Your task to perform on an android device: Add "dell xps" to the cart on ebay.com, then select checkout. Image 0: 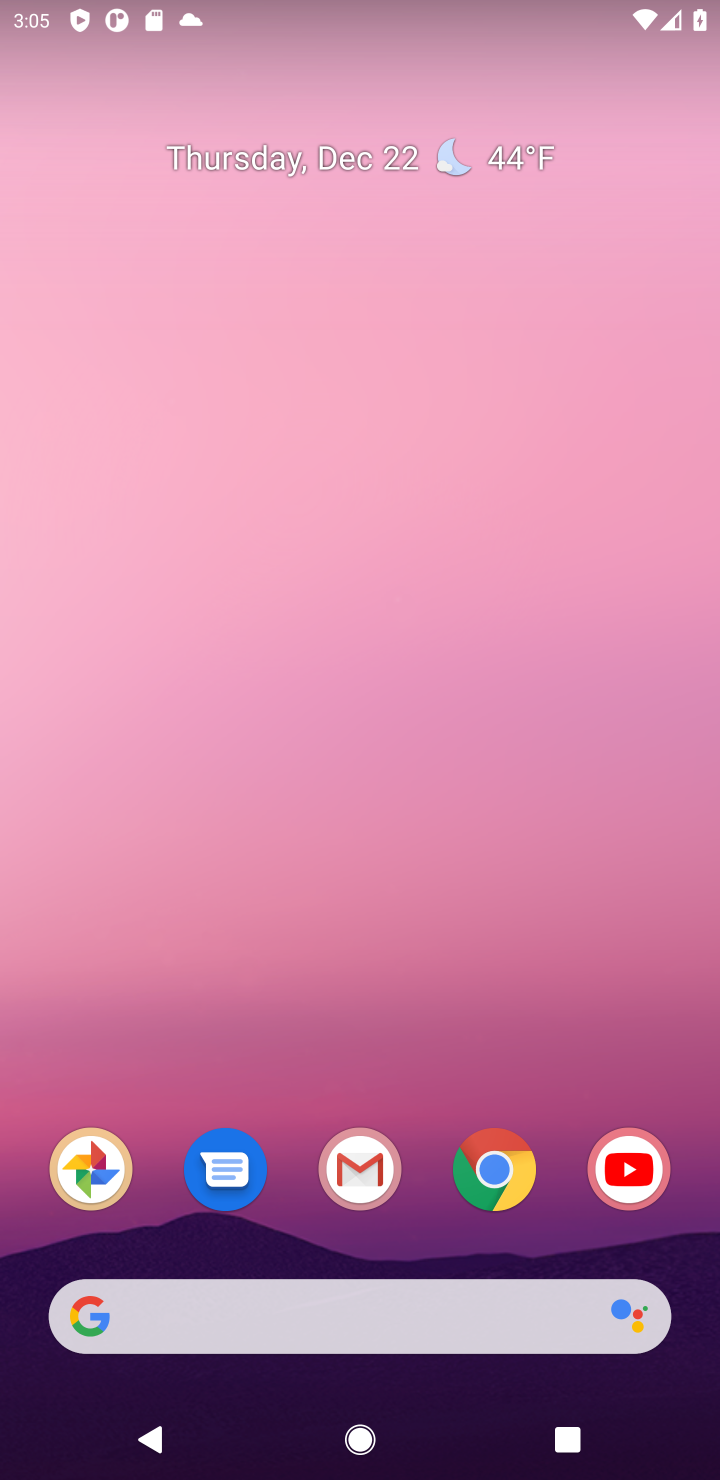
Step 0: click (500, 1180)
Your task to perform on an android device: Add "dell xps" to the cart on ebay.com, then select checkout. Image 1: 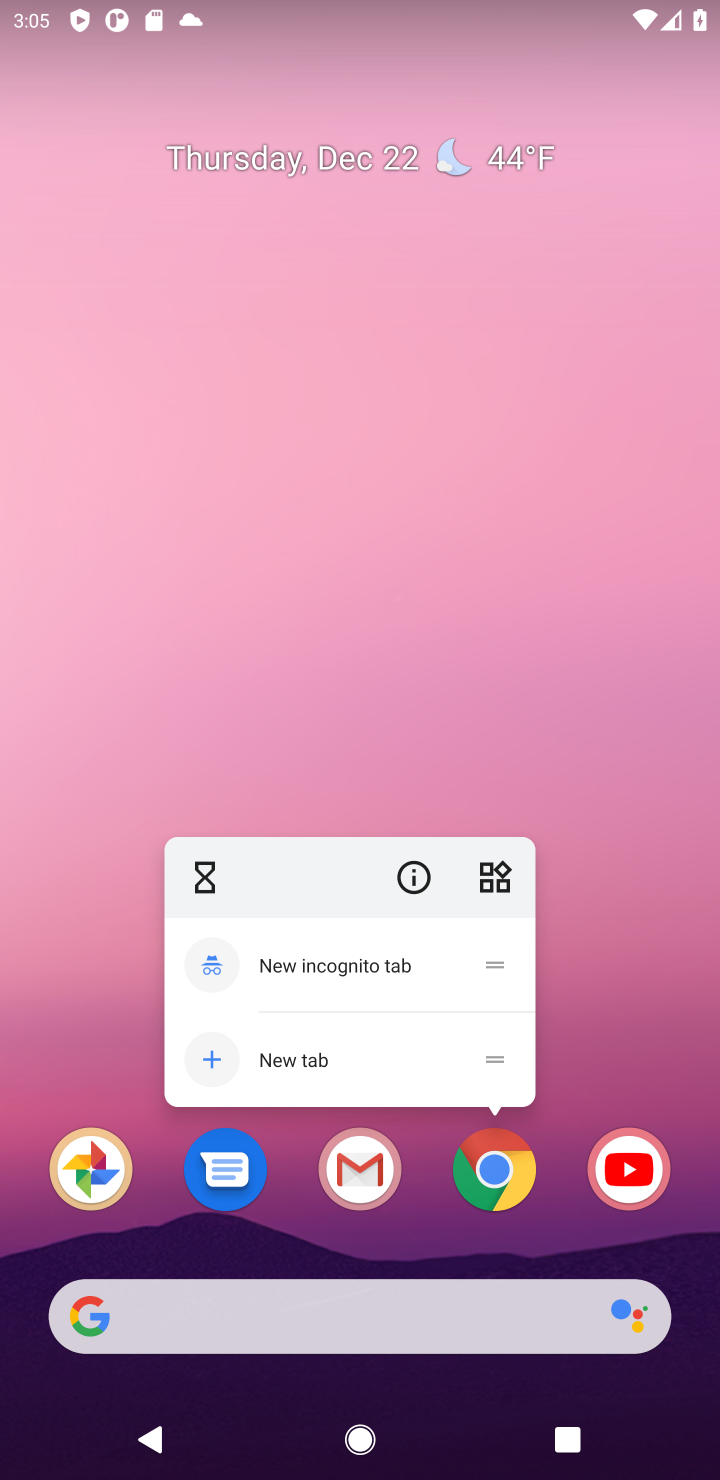
Step 1: click (500, 1180)
Your task to perform on an android device: Add "dell xps" to the cart on ebay.com, then select checkout. Image 2: 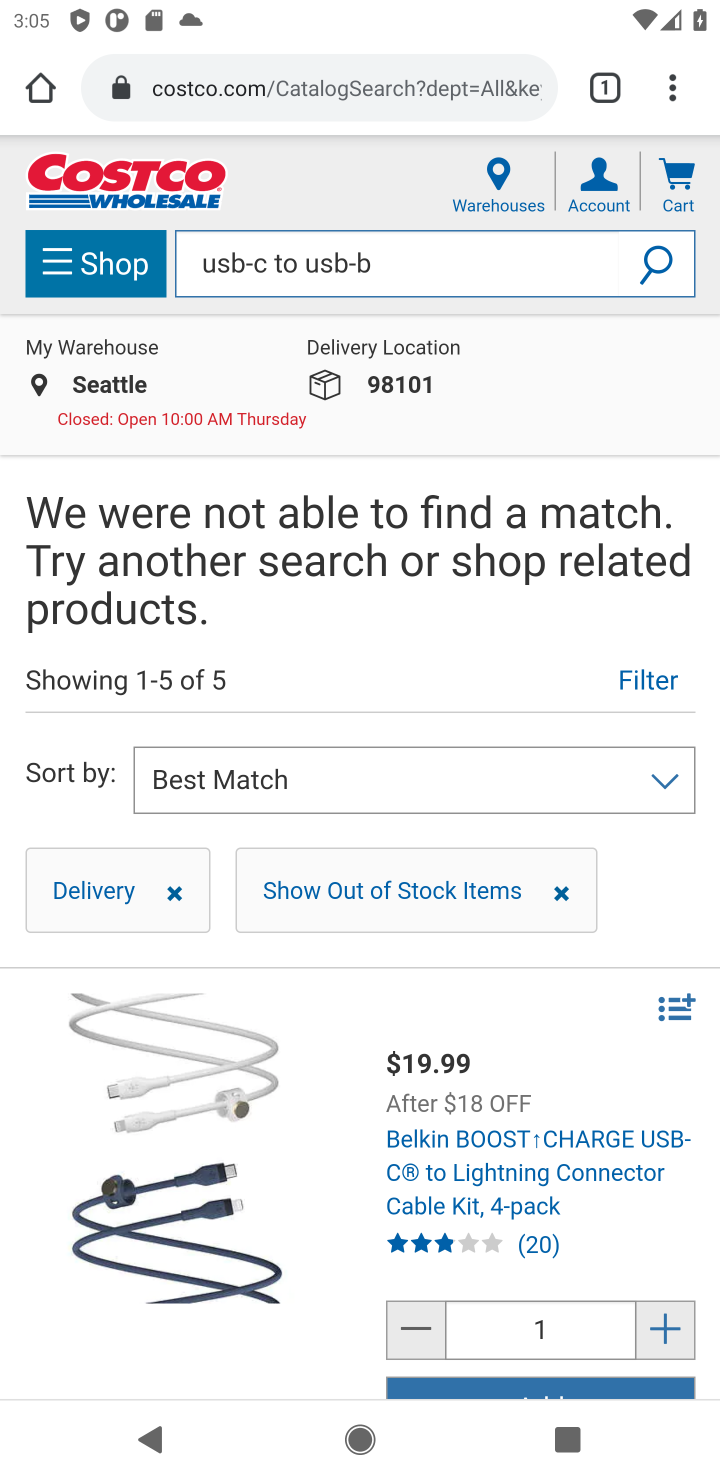
Step 2: click (271, 91)
Your task to perform on an android device: Add "dell xps" to the cart on ebay.com, then select checkout. Image 3: 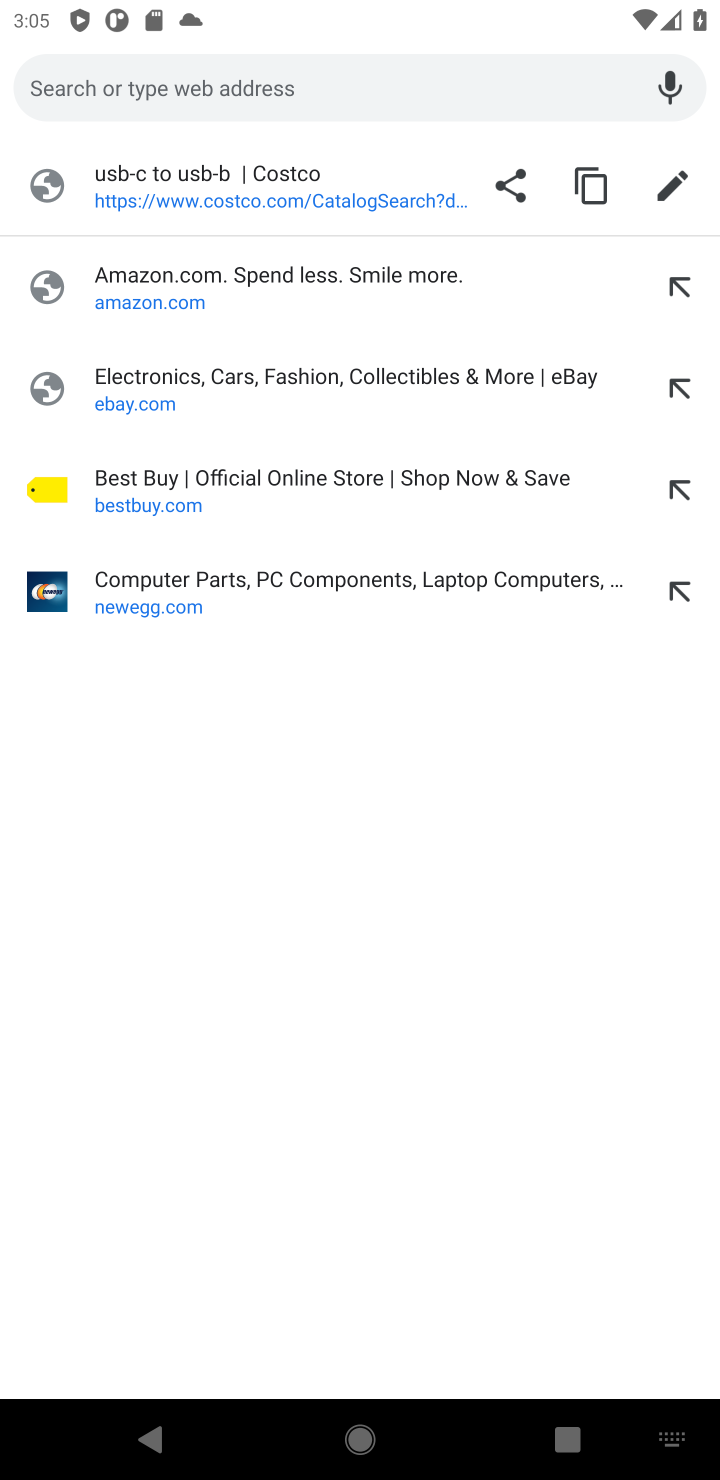
Step 3: click (119, 393)
Your task to perform on an android device: Add "dell xps" to the cart on ebay.com, then select checkout. Image 4: 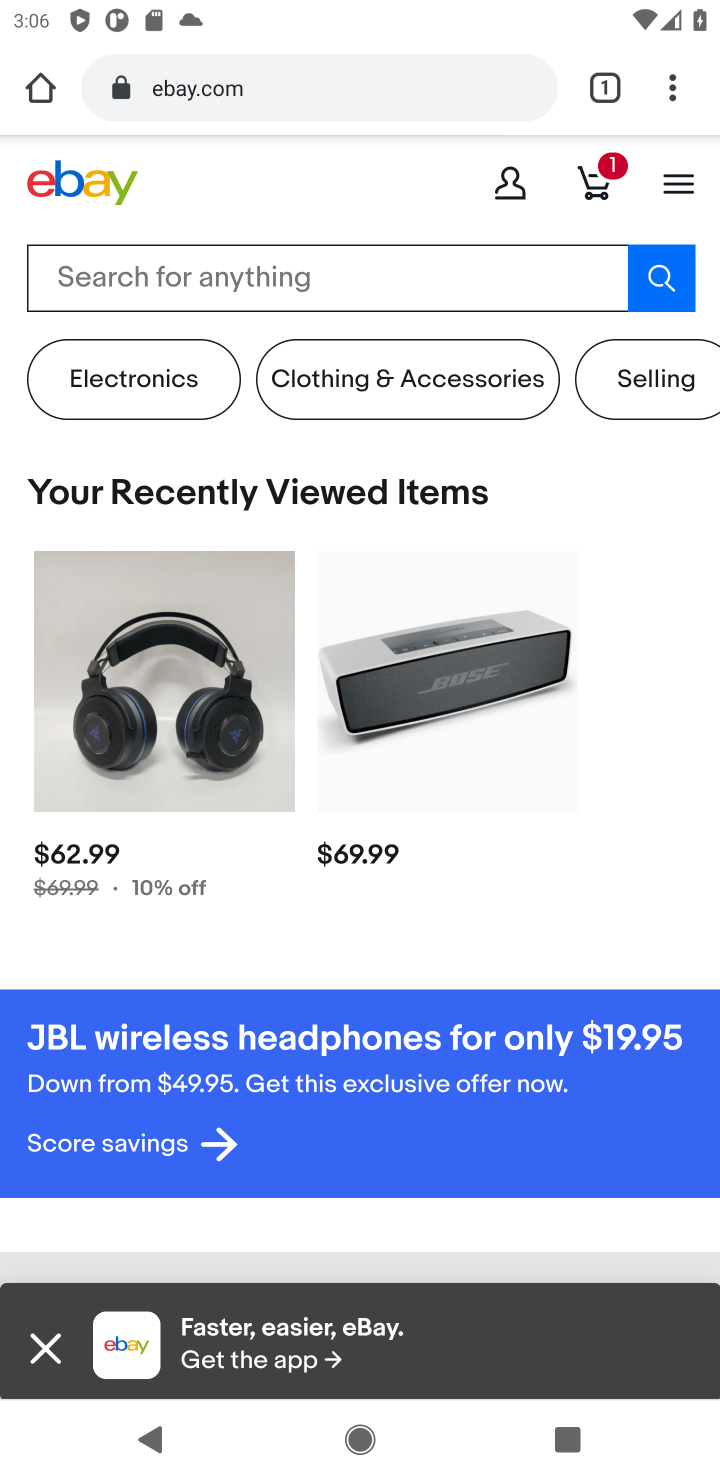
Step 4: click (96, 274)
Your task to perform on an android device: Add "dell xps" to the cart on ebay.com, then select checkout. Image 5: 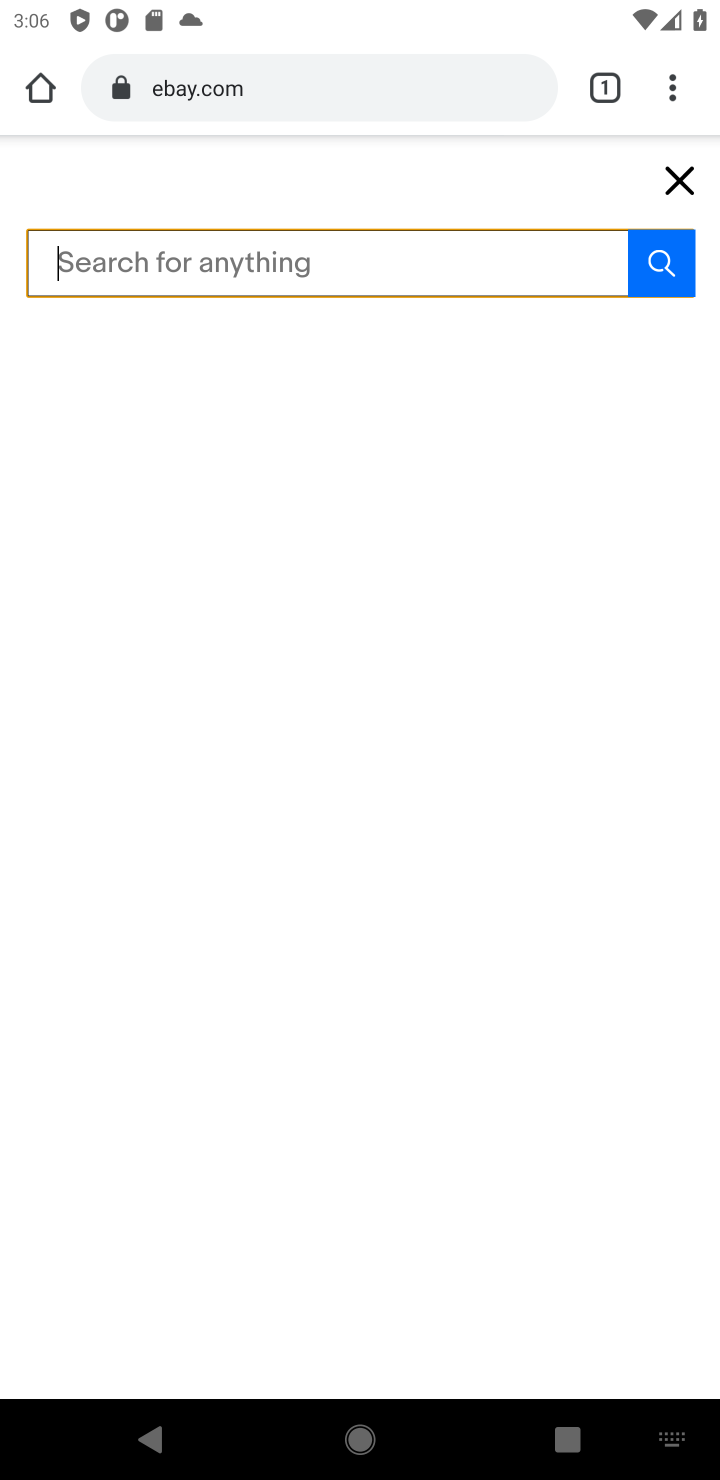
Step 5: type "dell xps"
Your task to perform on an android device: Add "dell xps" to the cart on ebay.com, then select checkout. Image 6: 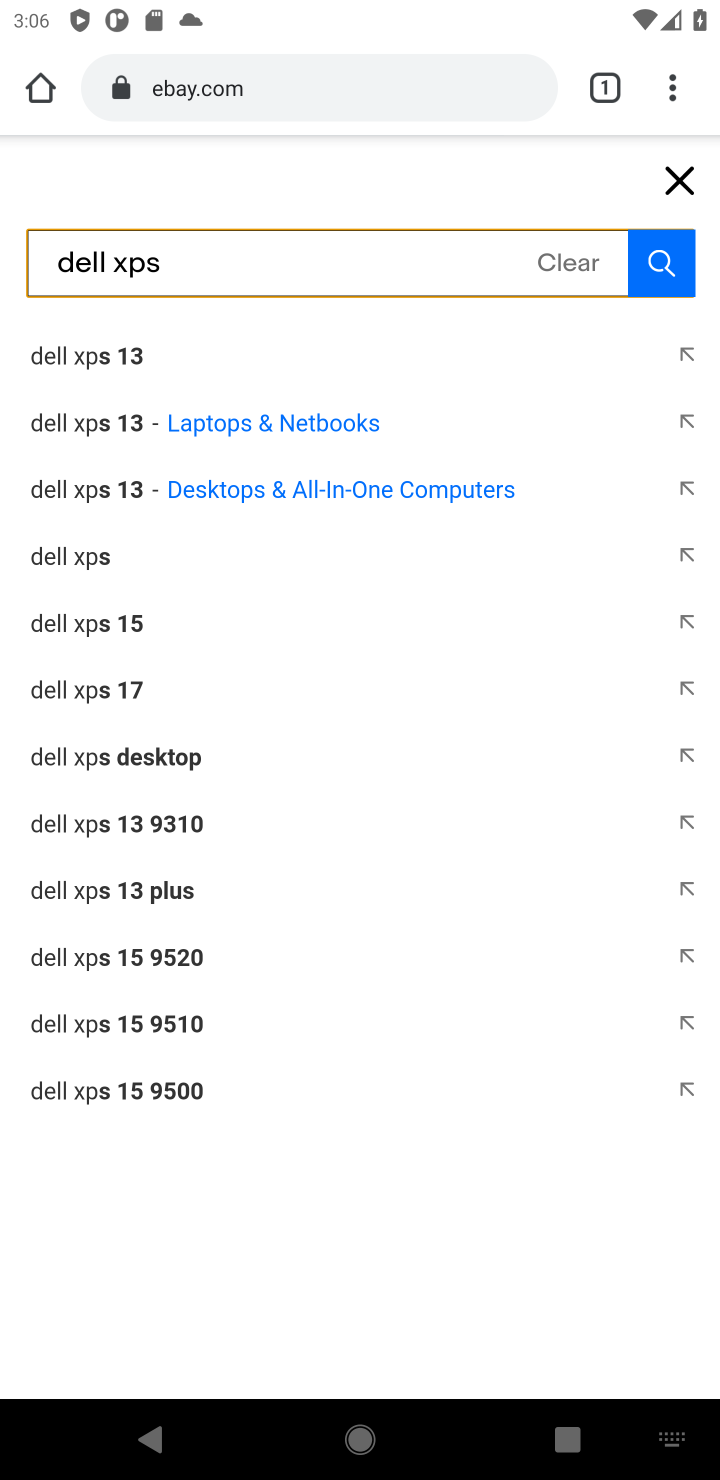
Step 6: click (80, 567)
Your task to perform on an android device: Add "dell xps" to the cart on ebay.com, then select checkout. Image 7: 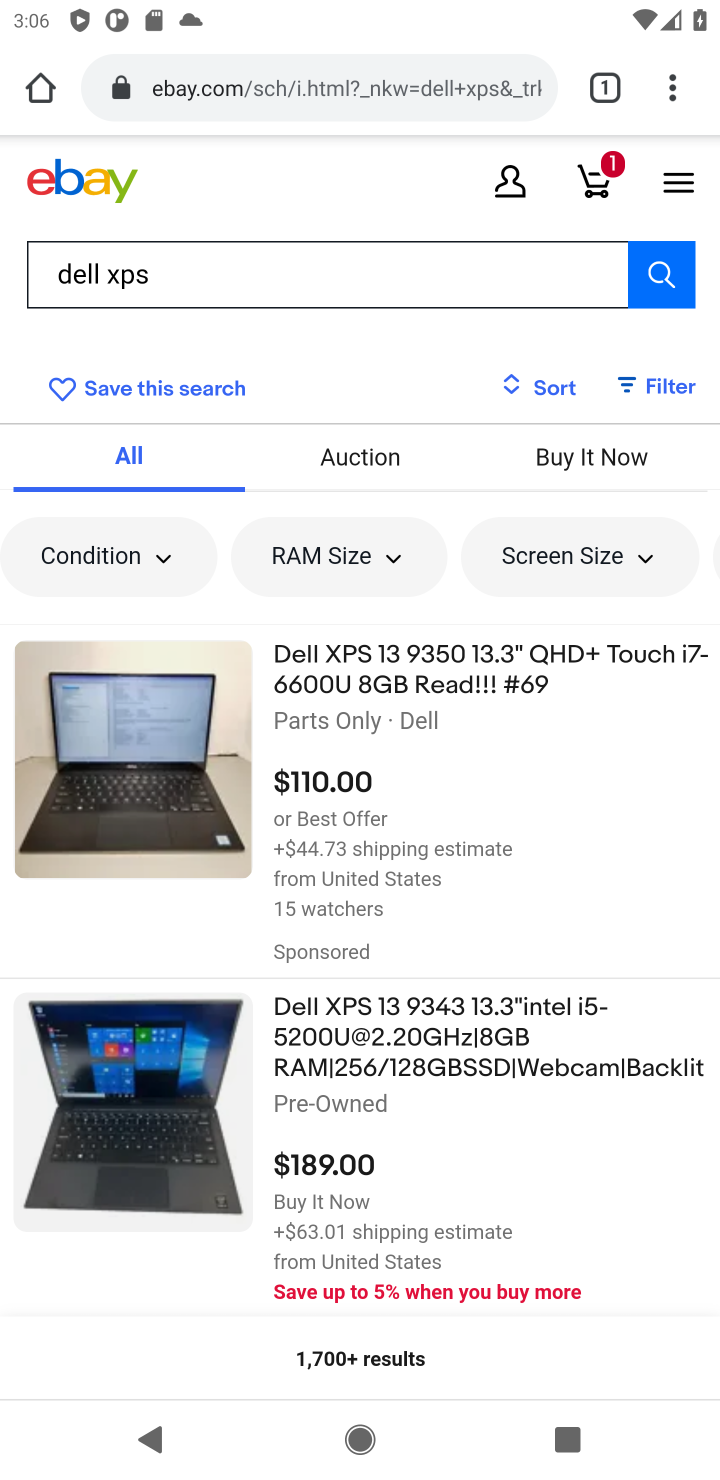
Step 7: click (384, 694)
Your task to perform on an android device: Add "dell xps" to the cart on ebay.com, then select checkout. Image 8: 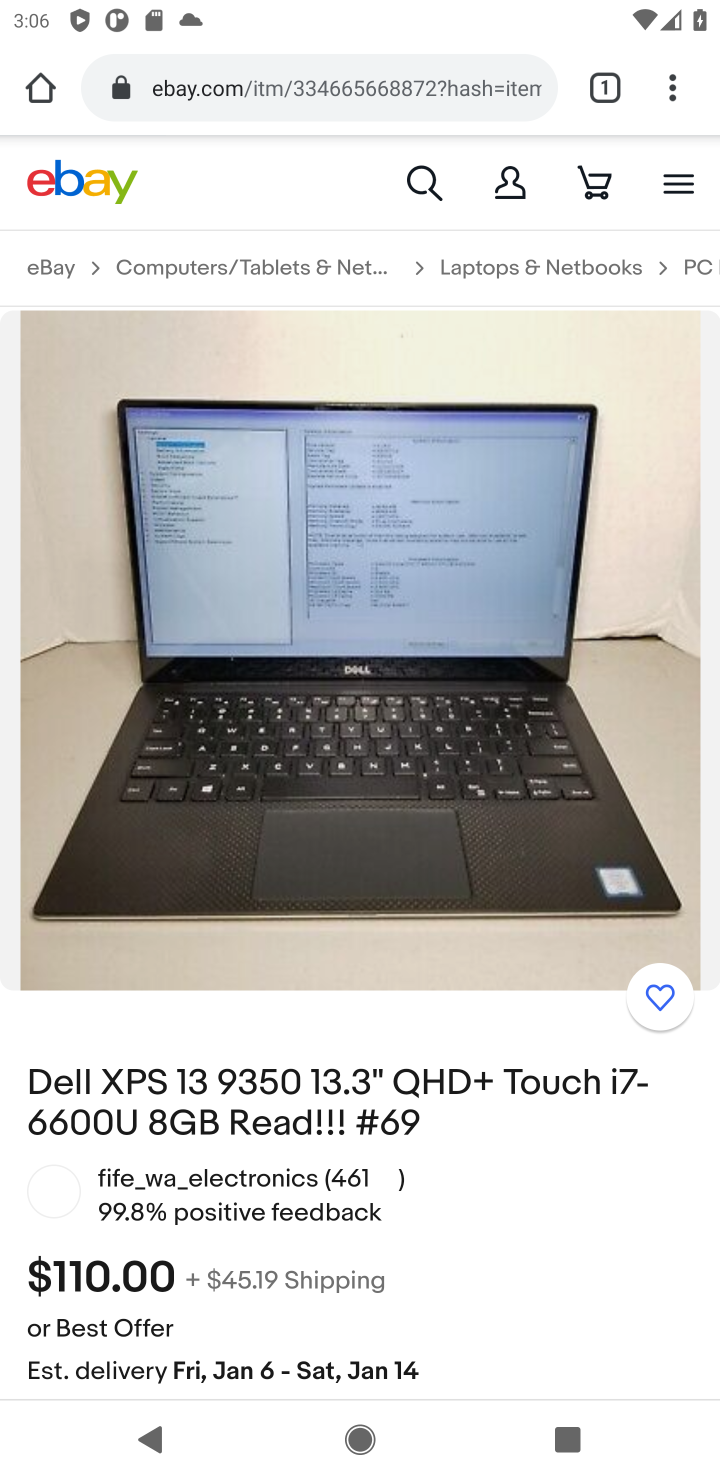
Step 8: drag from (232, 1123) to (303, 604)
Your task to perform on an android device: Add "dell xps" to the cart on ebay.com, then select checkout. Image 9: 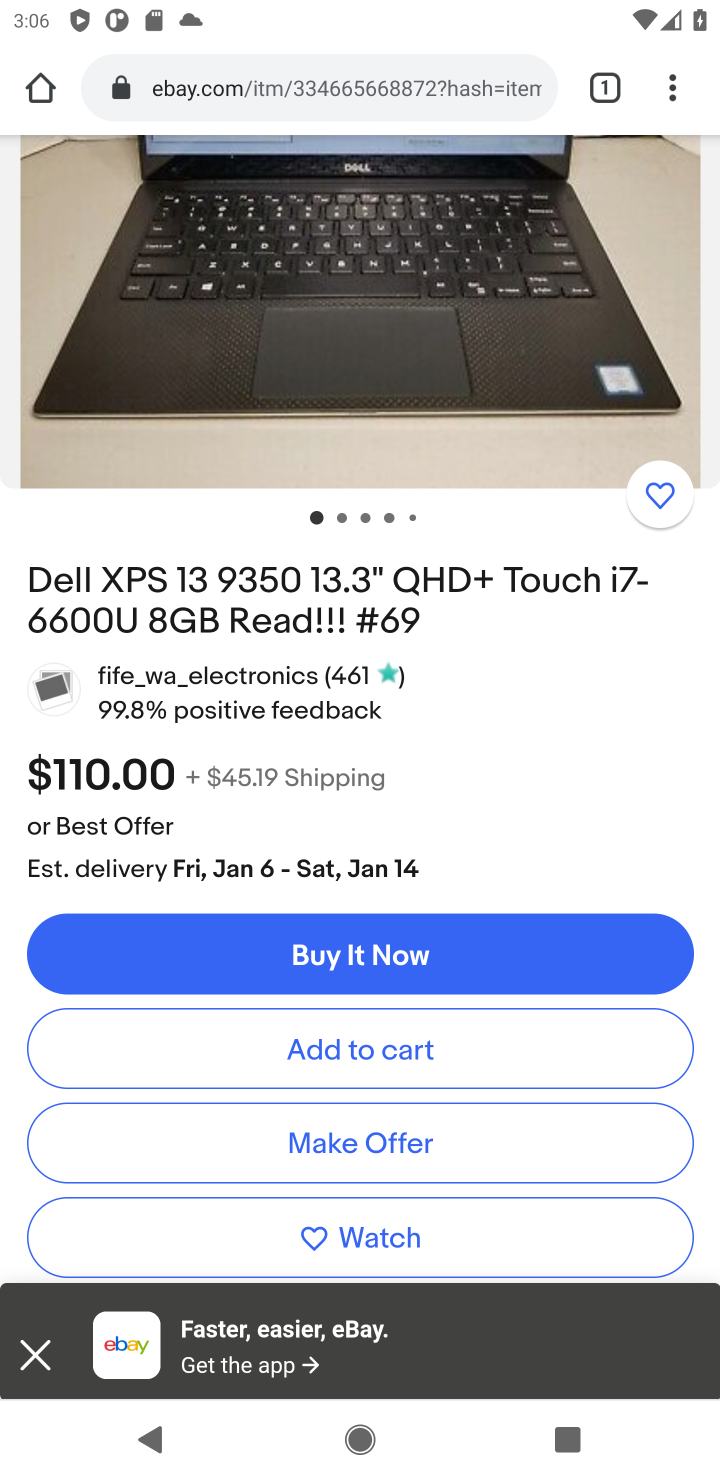
Step 9: click (343, 1051)
Your task to perform on an android device: Add "dell xps" to the cart on ebay.com, then select checkout. Image 10: 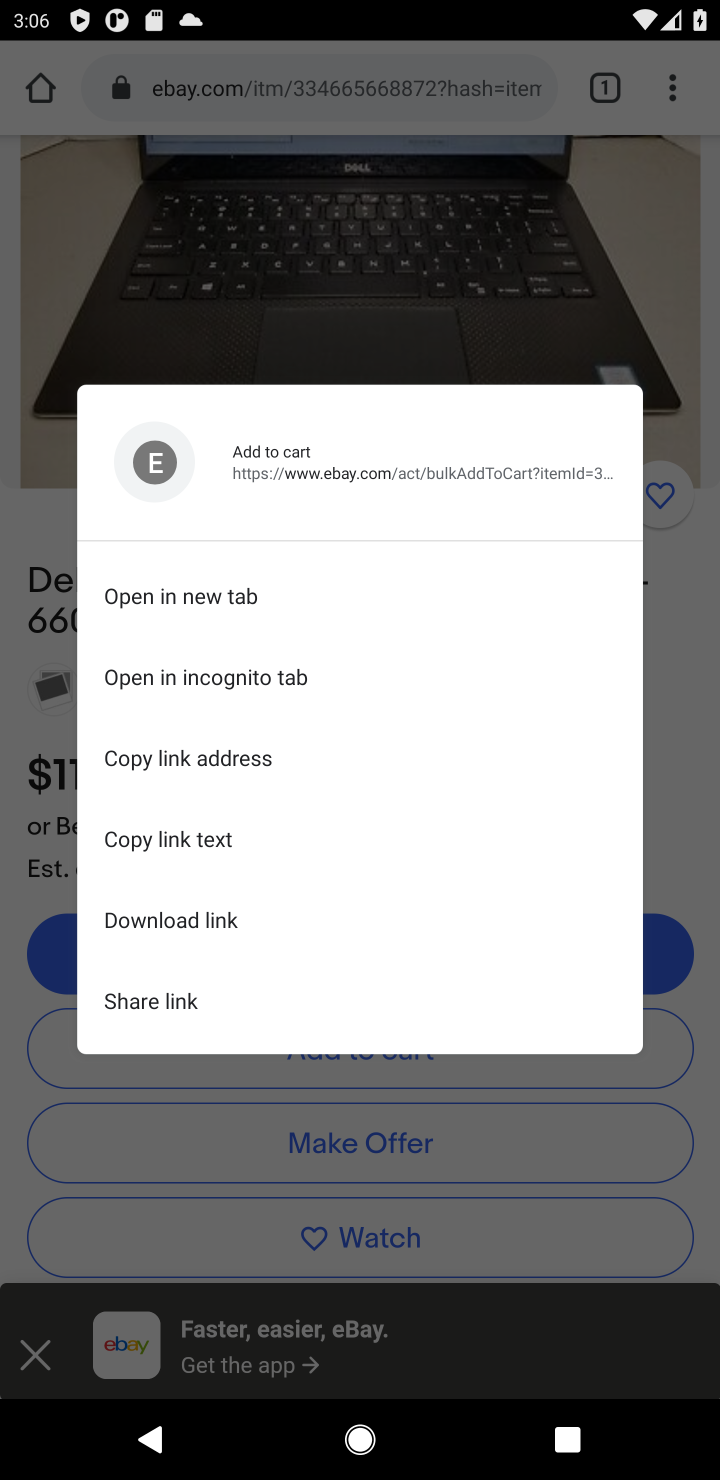
Step 10: click (336, 1066)
Your task to perform on an android device: Add "dell xps" to the cart on ebay.com, then select checkout. Image 11: 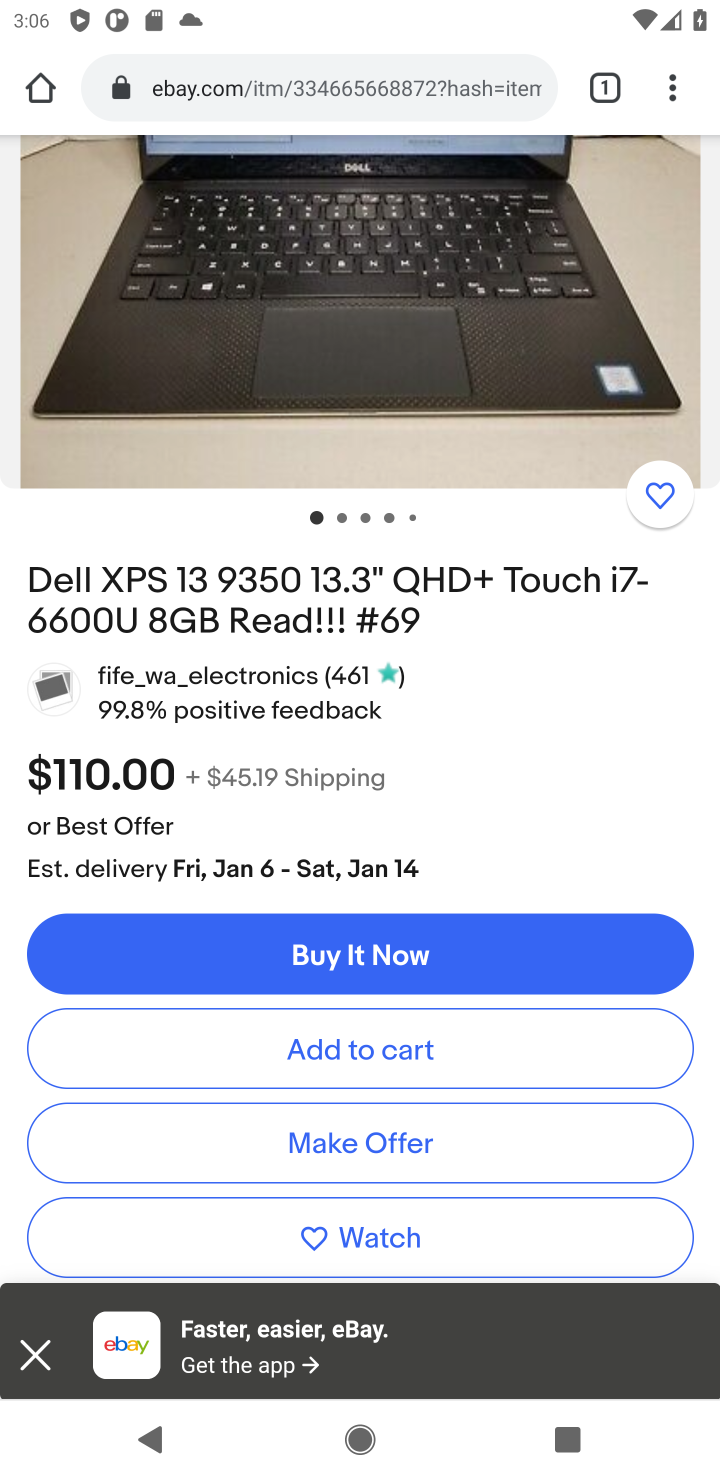
Step 11: click (347, 1048)
Your task to perform on an android device: Add "dell xps" to the cart on ebay.com, then select checkout. Image 12: 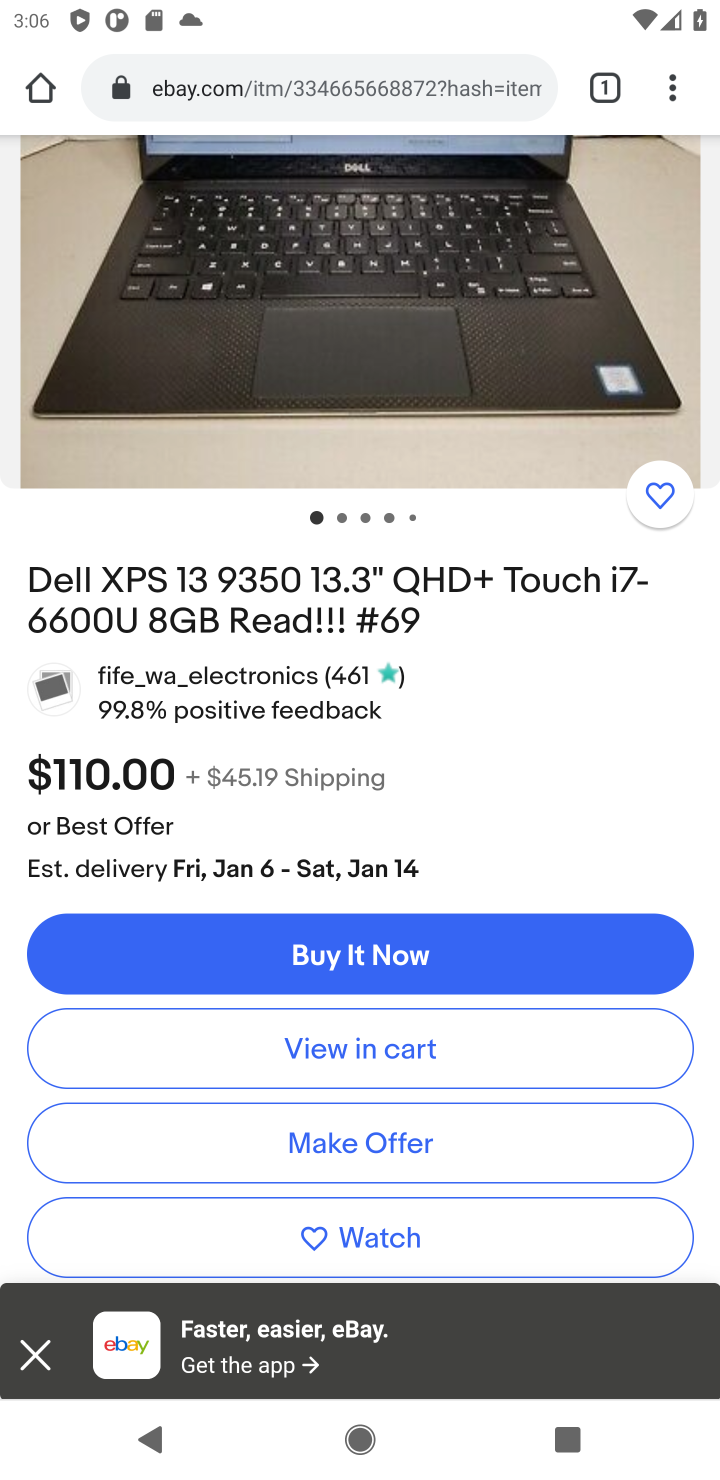
Step 12: click (347, 1048)
Your task to perform on an android device: Add "dell xps" to the cart on ebay.com, then select checkout. Image 13: 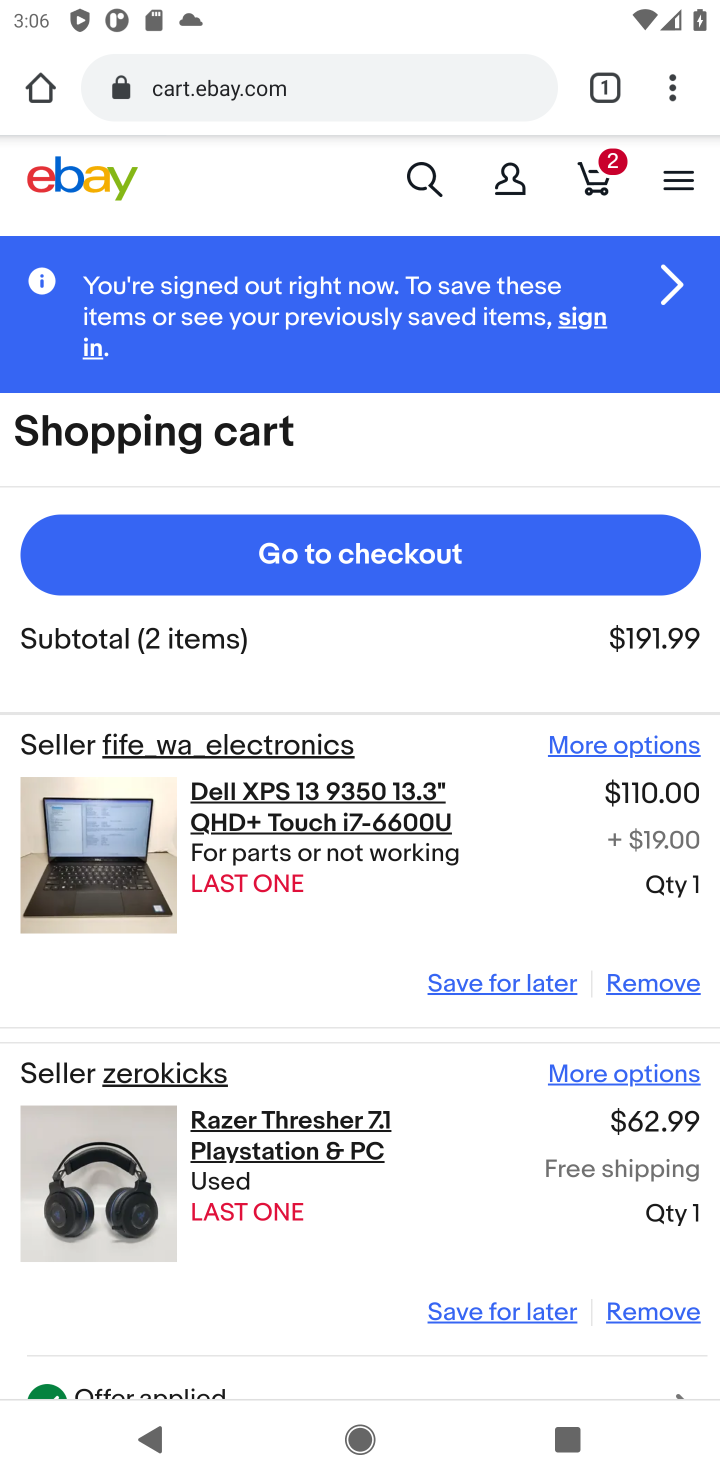
Step 13: click (330, 562)
Your task to perform on an android device: Add "dell xps" to the cart on ebay.com, then select checkout. Image 14: 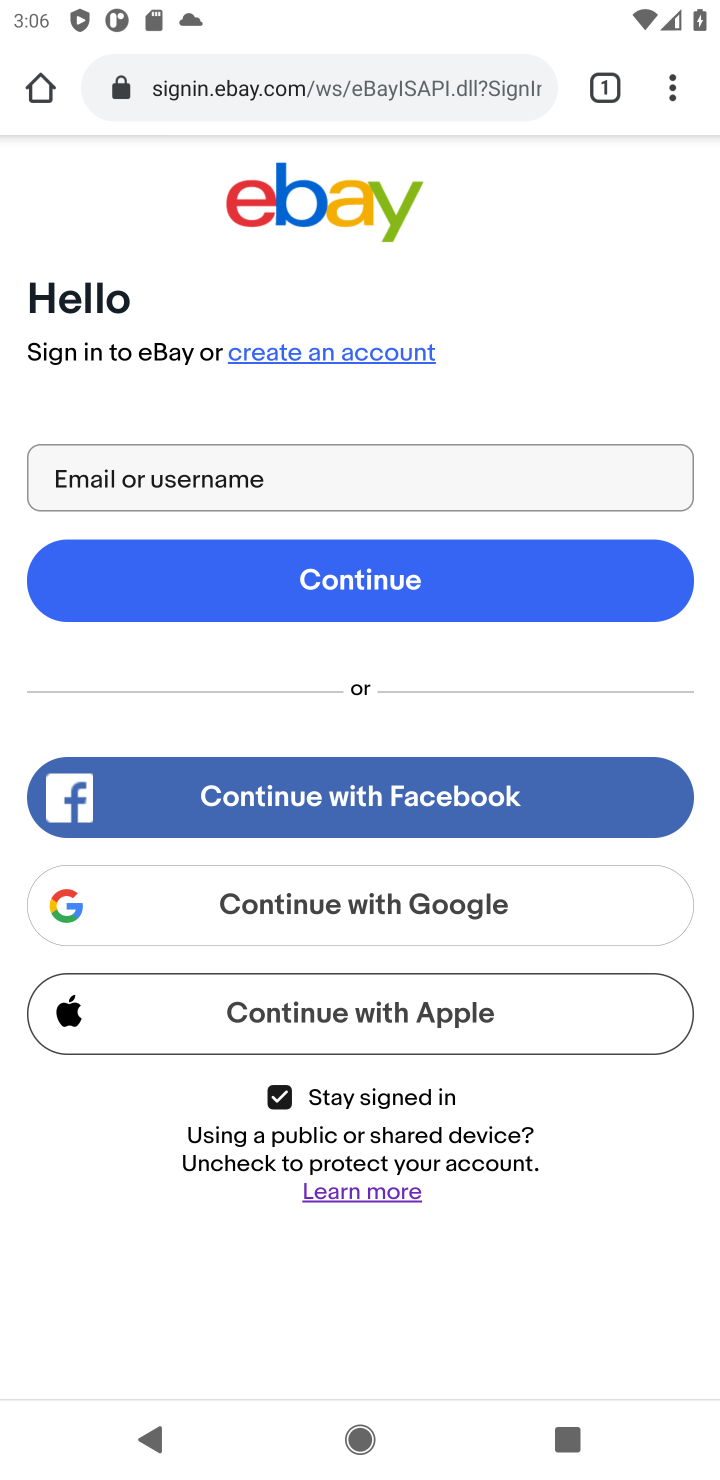
Step 14: task complete